Your task to perform on an android device: toggle location history Image 0: 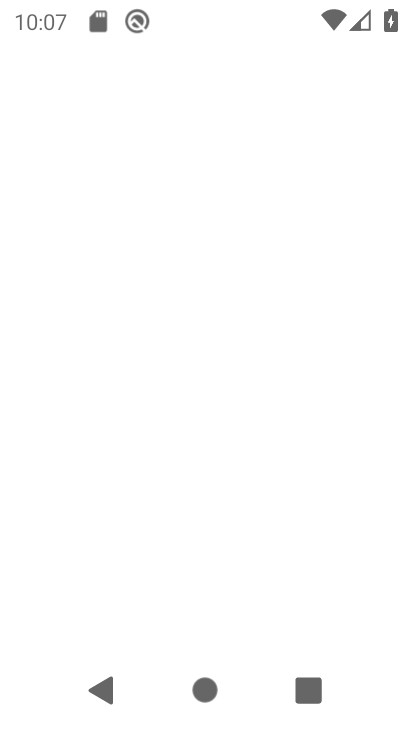
Step 0: press home button
Your task to perform on an android device: toggle location history Image 1: 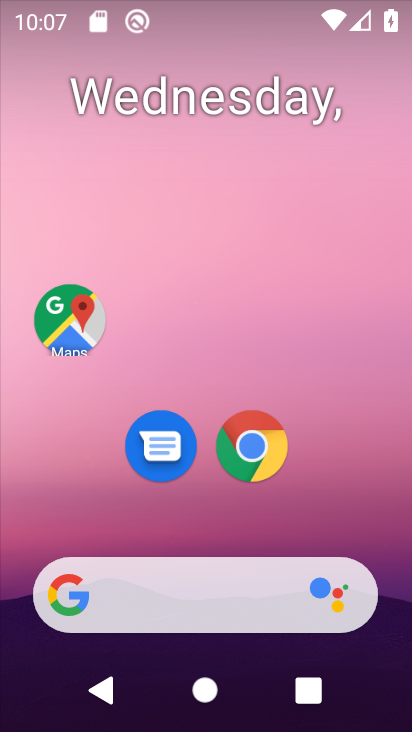
Step 1: drag from (90, 527) to (185, 53)
Your task to perform on an android device: toggle location history Image 2: 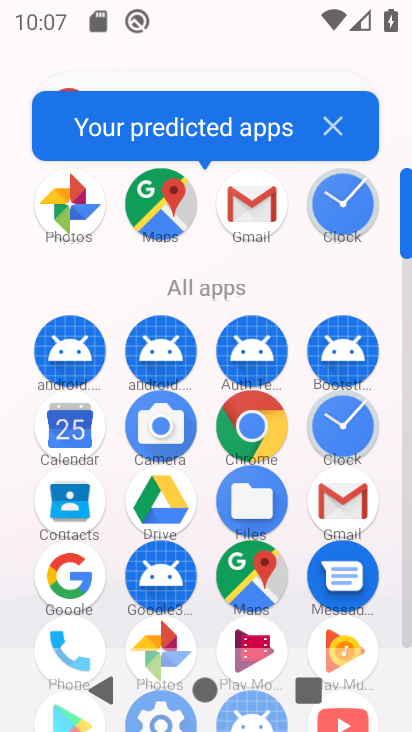
Step 2: drag from (146, 658) to (223, 375)
Your task to perform on an android device: toggle location history Image 3: 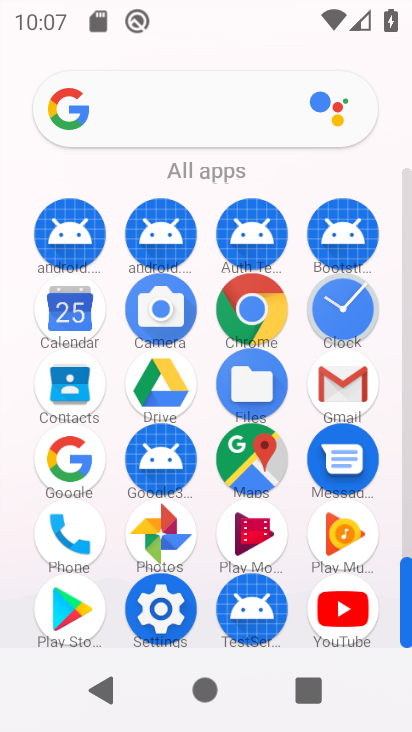
Step 3: click (165, 621)
Your task to perform on an android device: toggle location history Image 4: 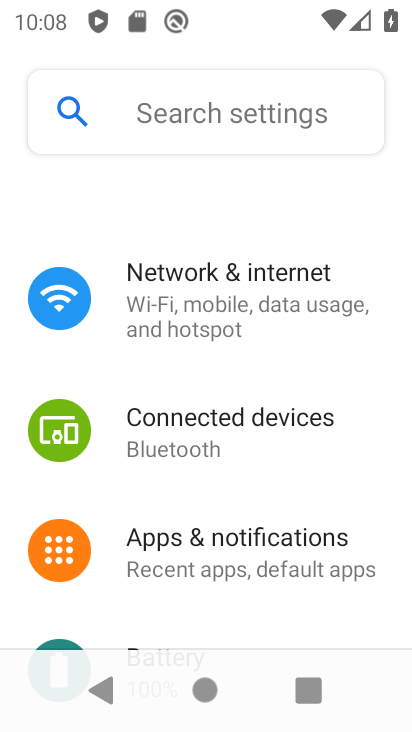
Step 4: drag from (192, 602) to (310, 229)
Your task to perform on an android device: toggle location history Image 5: 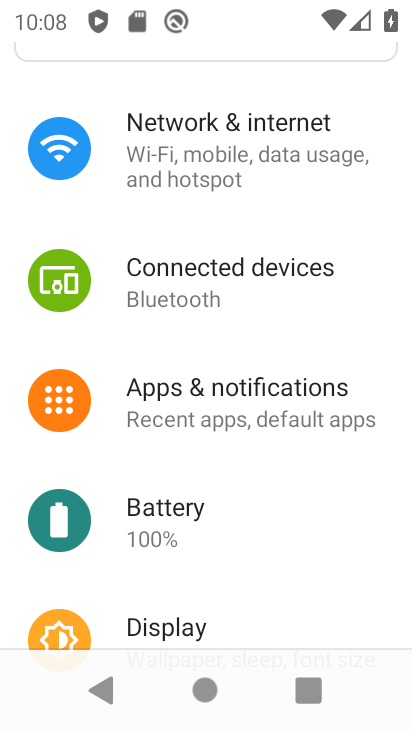
Step 5: drag from (231, 598) to (311, 281)
Your task to perform on an android device: toggle location history Image 6: 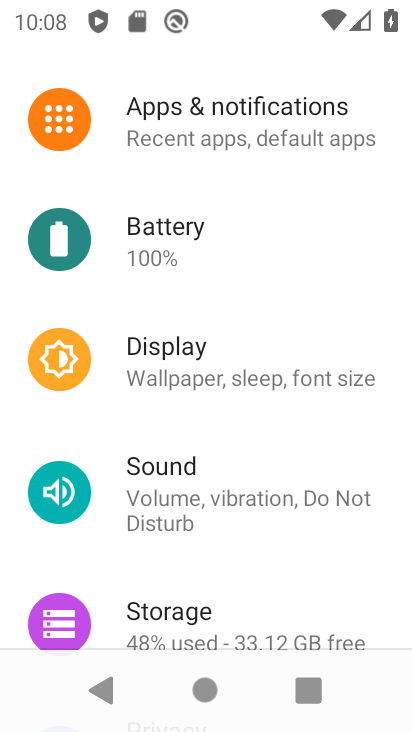
Step 6: drag from (200, 607) to (301, 249)
Your task to perform on an android device: toggle location history Image 7: 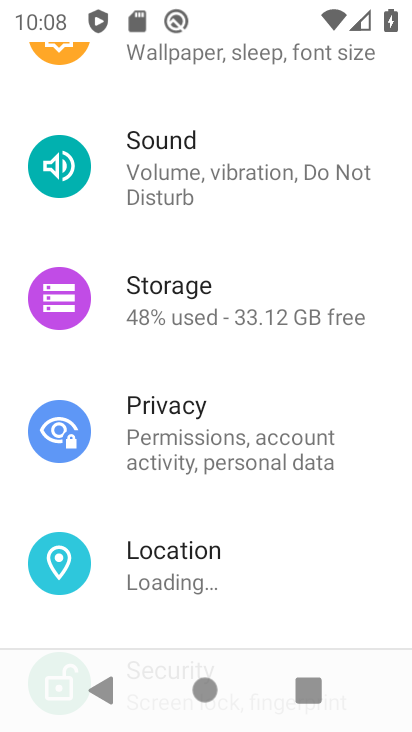
Step 7: click (217, 589)
Your task to perform on an android device: toggle location history Image 8: 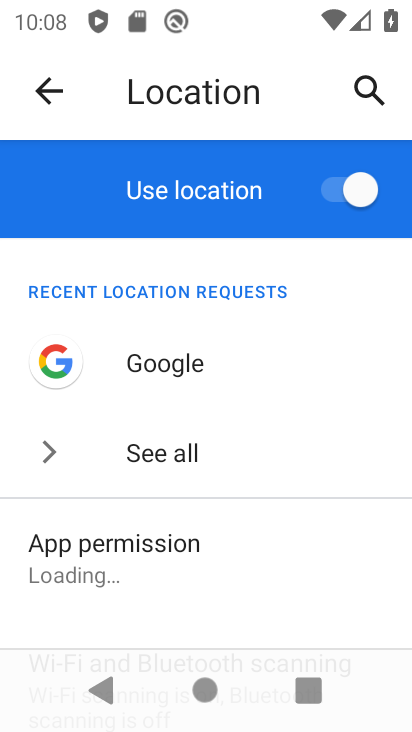
Step 8: drag from (267, 577) to (361, 273)
Your task to perform on an android device: toggle location history Image 9: 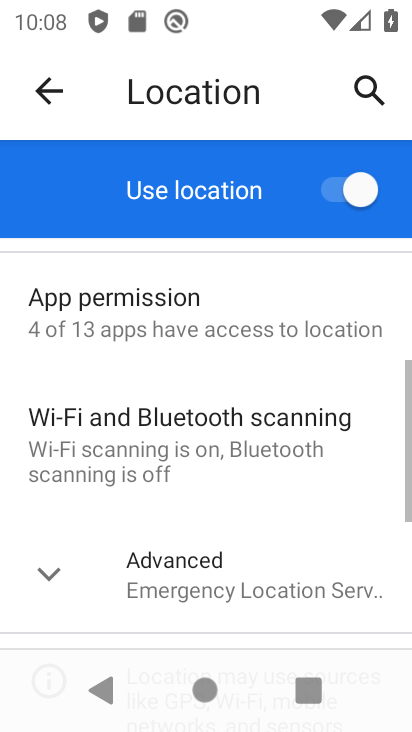
Step 9: drag from (218, 628) to (312, 417)
Your task to perform on an android device: toggle location history Image 10: 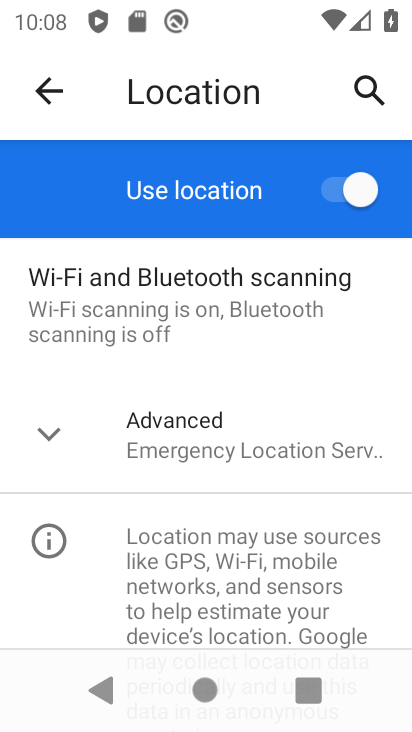
Step 10: click (238, 462)
Your task to perform on an android device: toggle location history Image 11: 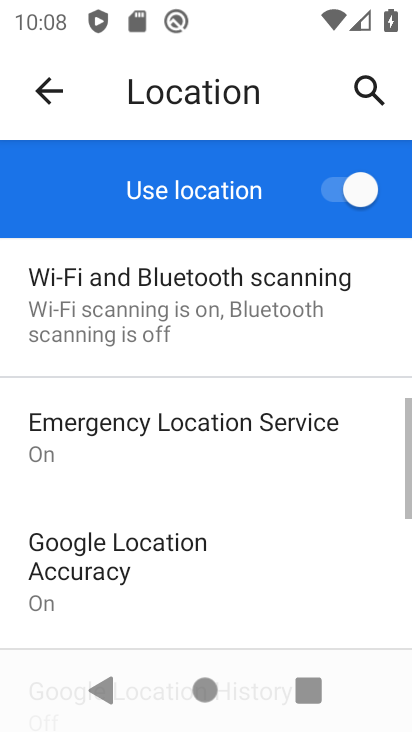
Step 11: drag from (254, 578) to (350, 319)
Your task to perform on an android device: toggle location history Image 12: 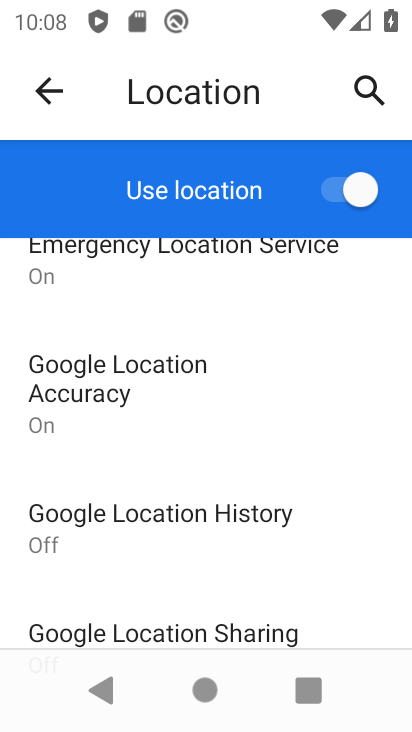
Step 12: click (230, 530)
Your task to perform on an android device: toggle location history Image 13: 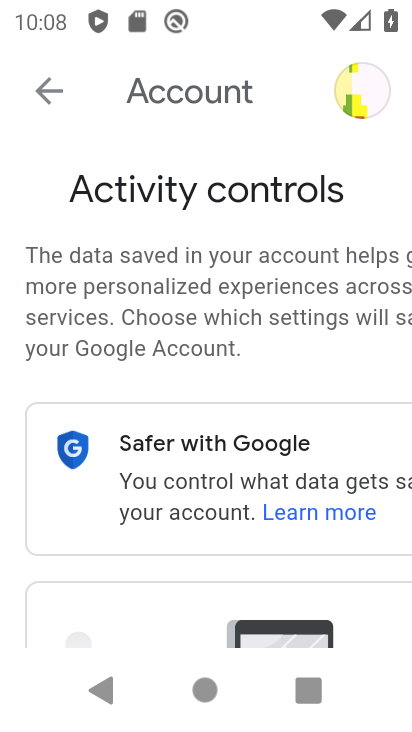
Step 13: drag from (240, 575) to (352, 84)
Your task to perform on an android device: toggle location history Image 14: 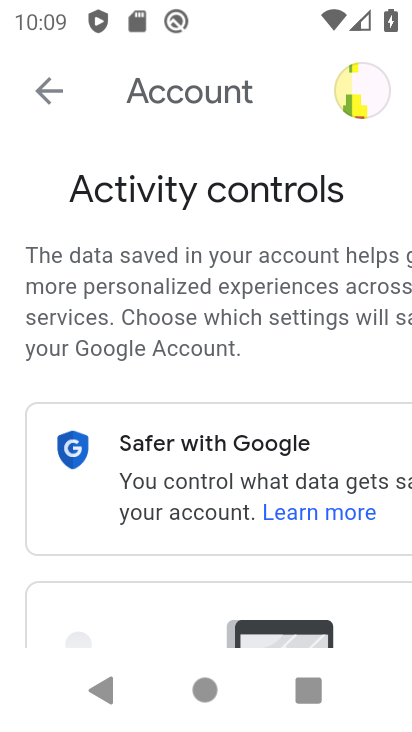
Step 14: drag from (226, 571) to (353, 65)
Your task to perform on an android device: toggle location history Image 15: 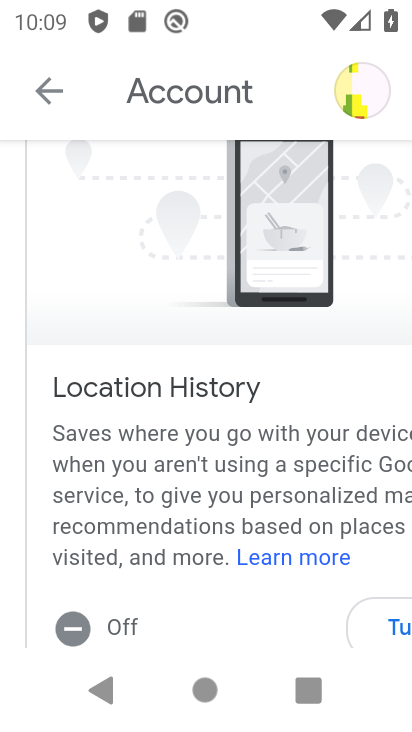
Step 15: click (371, 614)
Your task to perform on an android device: toggle location history Image 16: 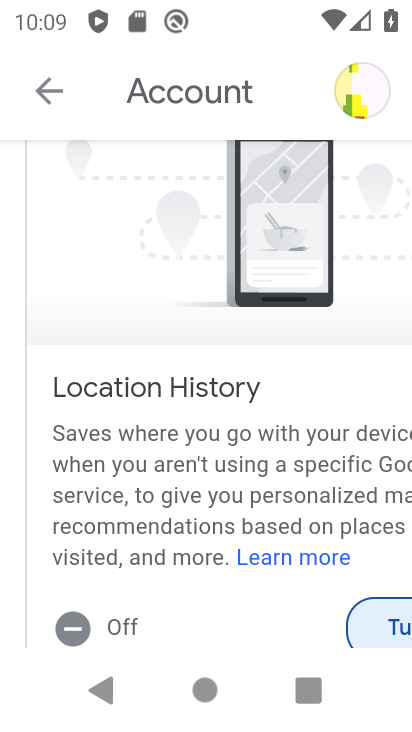
Step 16: click (403, 627)
Your task to perform on an android device: toggle location history Image 17: 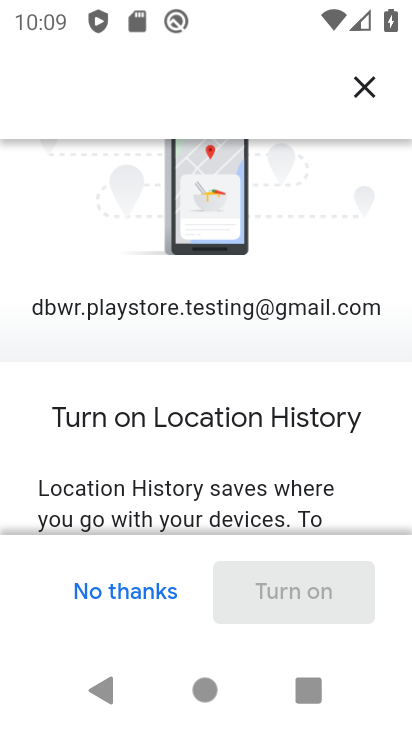
Step 17: drag from (174, 512) to (306, 117)
Your task to perform on an android device: toggle location history Image 18: 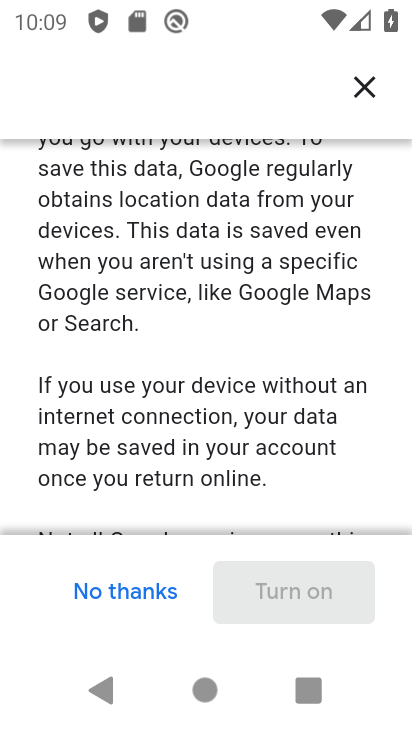
Step 18: drag from (206, 502) to (296, 111)
Your task to perform on an android device: toggle location history Image 19: 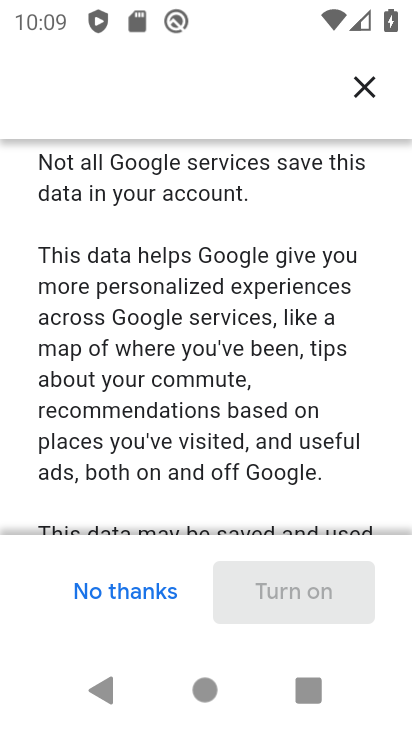
Step 19: drag from (220, 416) to (294, 80)
Your task to perform on an android device: toggle location history Image 20: 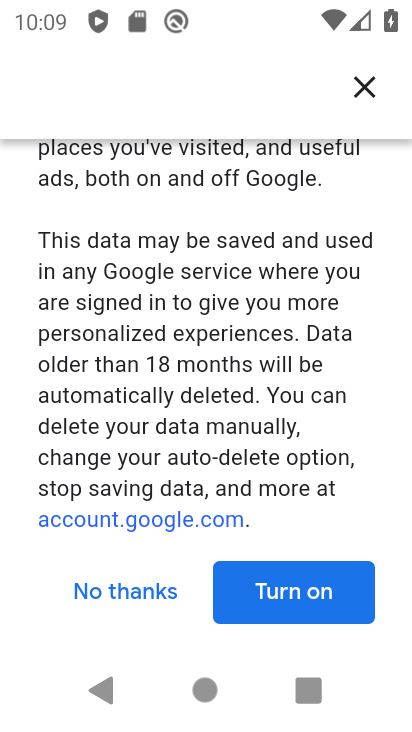
Step 20: drag from (194, 482) to (287, 132)
Your task to perform on an android device: toggle location history Image 21: 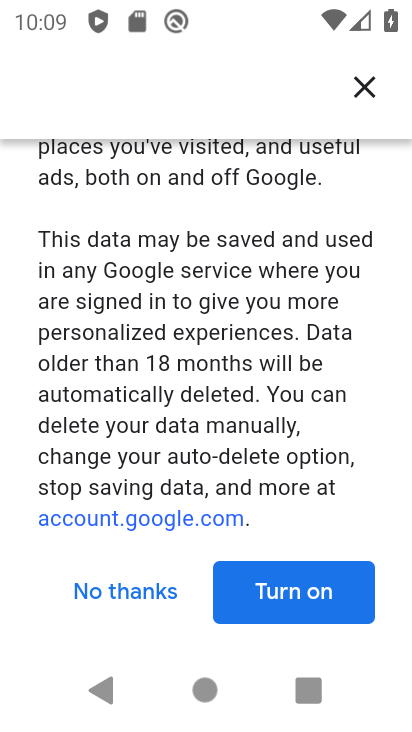
Step 21: click (309, 607)
Your task to perform on an android device: toggle location history Image 22: 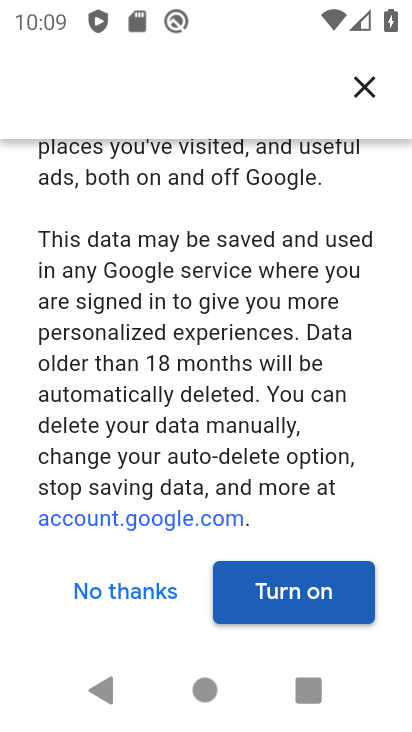
Step 22: click (309, 604)
Your task to perform on an android device: toggle location history Image 23: 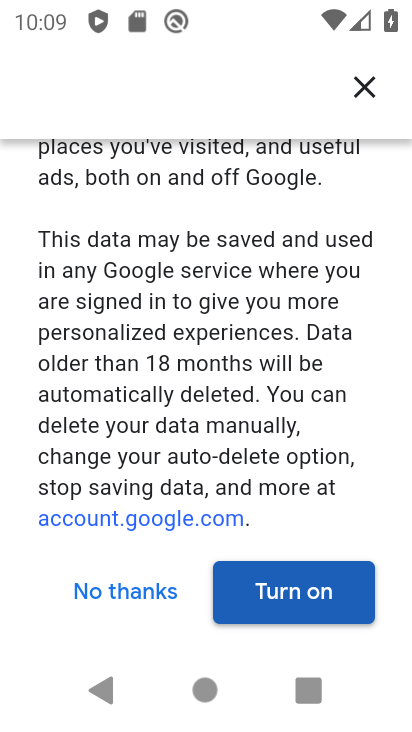
Step 23: click (309, 604)
Your task to perform on an android device: toggle location history Image 24: 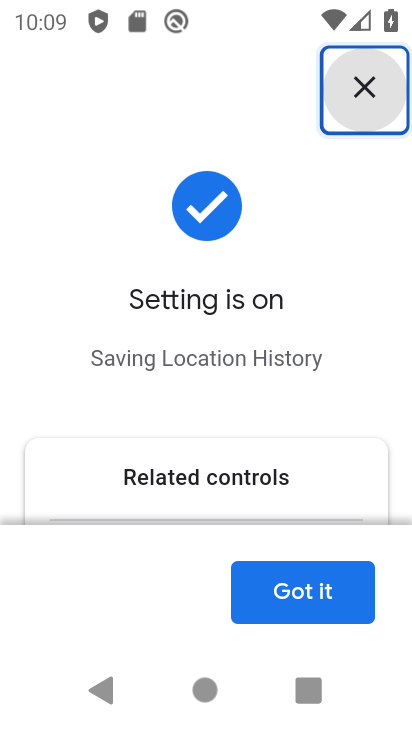
Step 24: click (306, 613)
Your task to perform on an android device: toggle location history Image 25: 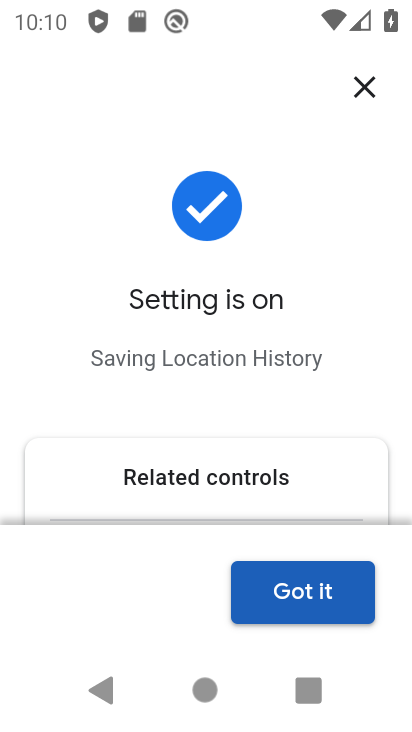
Step 25: click (308, 611)
Your task to perform on an android device: toggle location history Image 26: 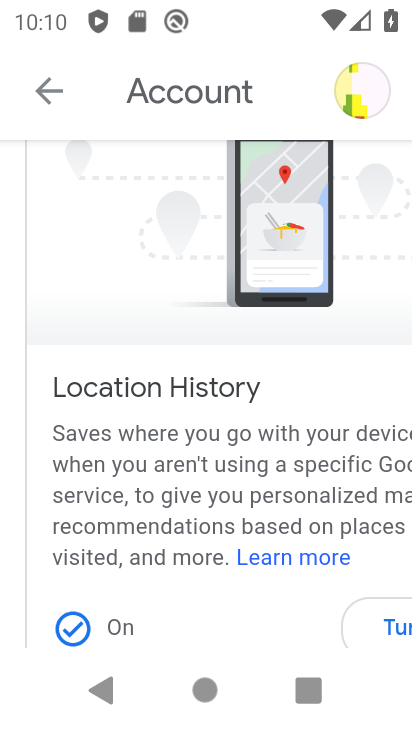
Step 26: task complete